Your task to perform on an android device: What's the top post on reddit right now? Image 0: 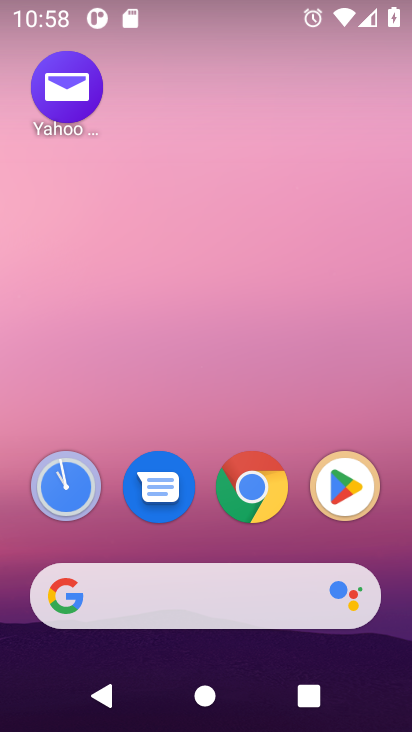
Step 0: drag from (190, 556) to (218, 41)
Your task to perform on an android device: What's the top post on reddit right now? Image 1: 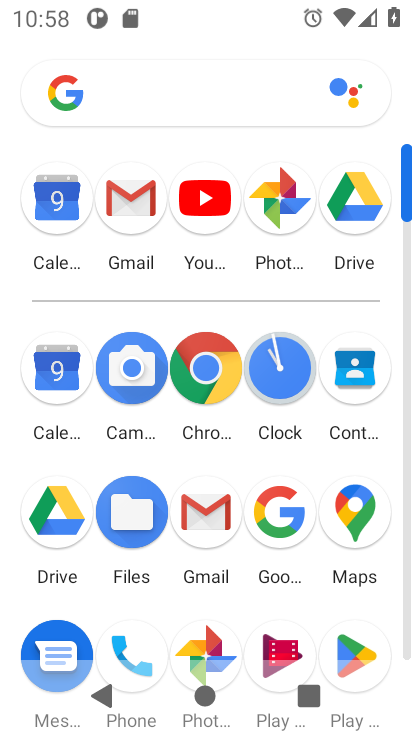
Step 1: click (213, 373)
Your task to perform on an android device: What's the top post on reddit right now? Image 2: 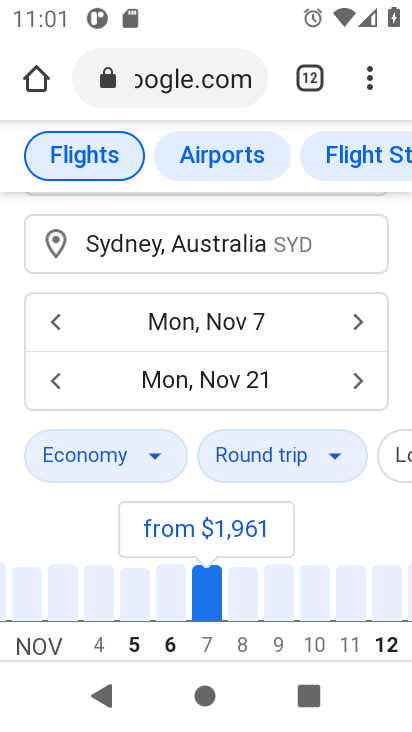
Step 2: drag from (372, 86) to (95, 146)
Your task to perform on an android device: What's the top post on reddit right now? Image 3: 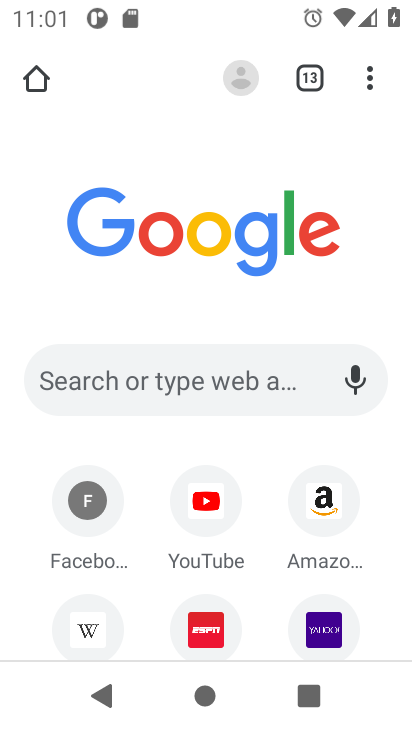
Step 3: click (228, 373)
Your task to perform on an android device: What's the top post on reddit right now? Image 4: 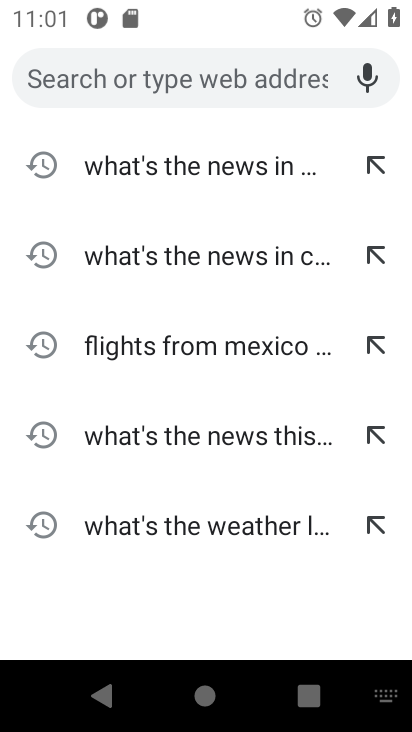
Step 4: type "What's the top post on reddit right now?"
Your task to perform on an android device: What's the top post on reddit right now? Image 5: 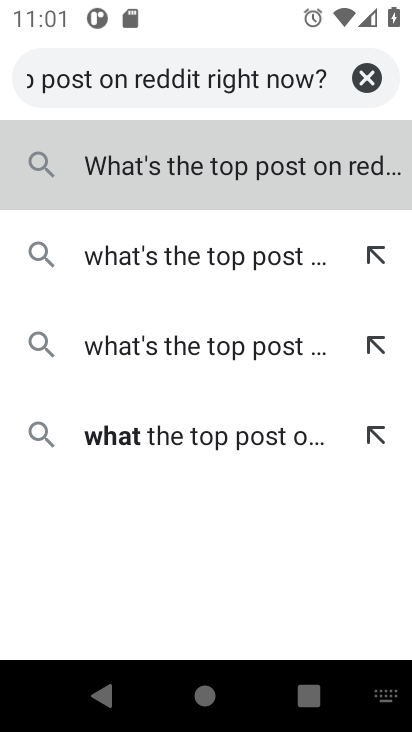
Step 5: type ""
Your task to perform on an android device: What's the top post on reddit right now? Image 6: 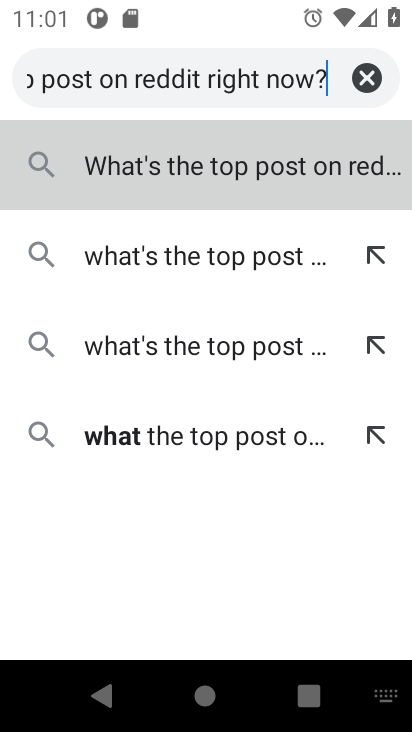
Step 6: click (223, 246)
Your task to perform on an android device: What's the top post on reddit right now? Image 7: 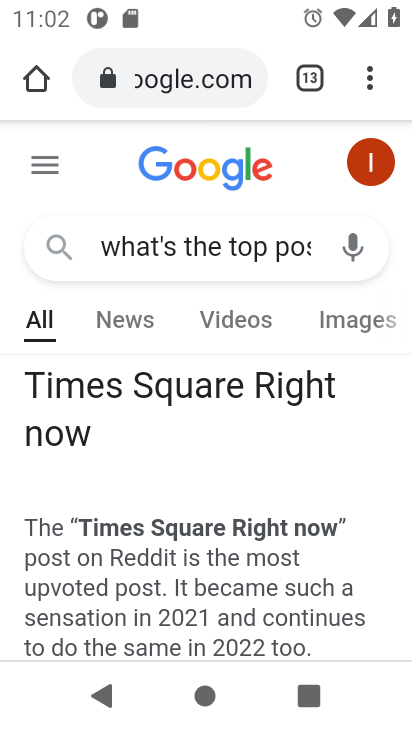
Step 7: task complete